Your task to perform on an android device: turn off notifications settings in the gmail app Image 0: 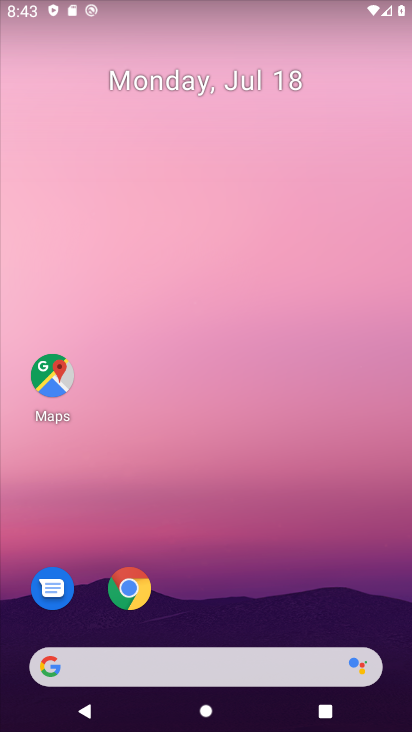
Step 0: press home button
Your task to perform on an android device: turn off notifications settings in the gmail app Image 1: 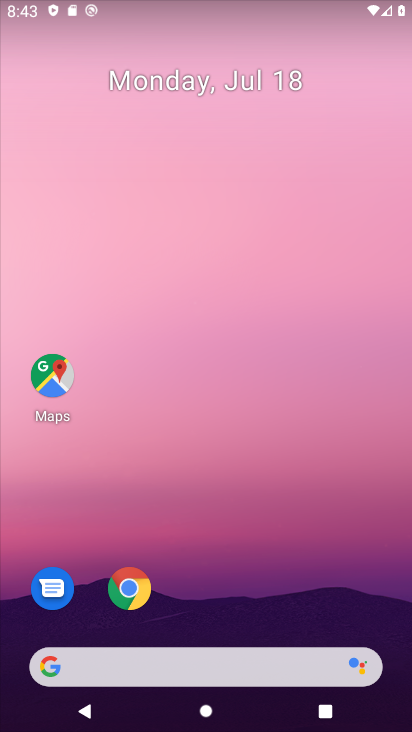
Step 1: drag from (230, 689) to (174, 66)
Your task to perform on an android device: turn off notifications settings in the gmail app Image 2: 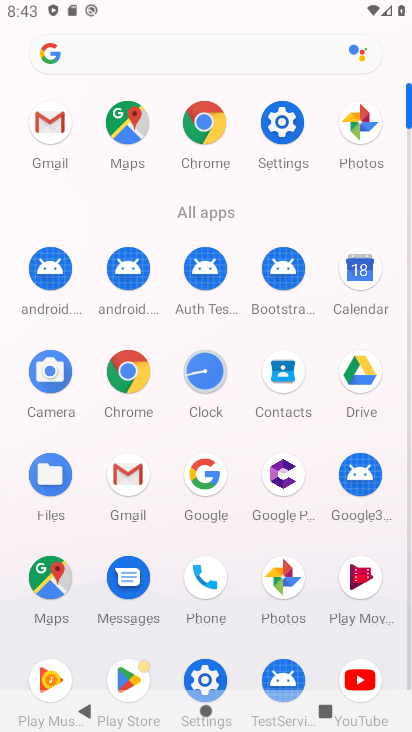
Step 2: click (139, 480)
Your task to perform on an android device: turn off notifications settings in the gmail app Image 3: 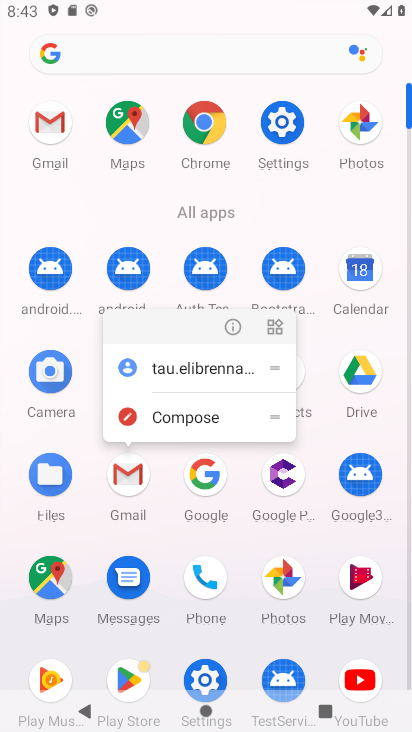
Step 3: click (244, 325)
Your task to perform on an android device: turn off notifications settings in the gmail app Image 4: 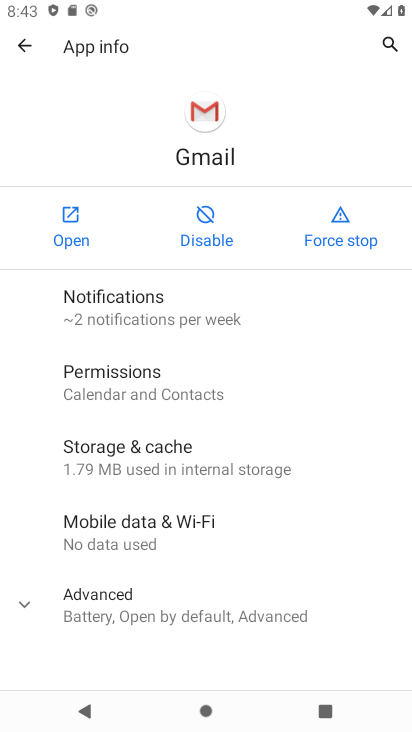
Step 4: click (66, 305)
Your task to perform on an android device: turn off notifications settings in the gmail app Image 5: 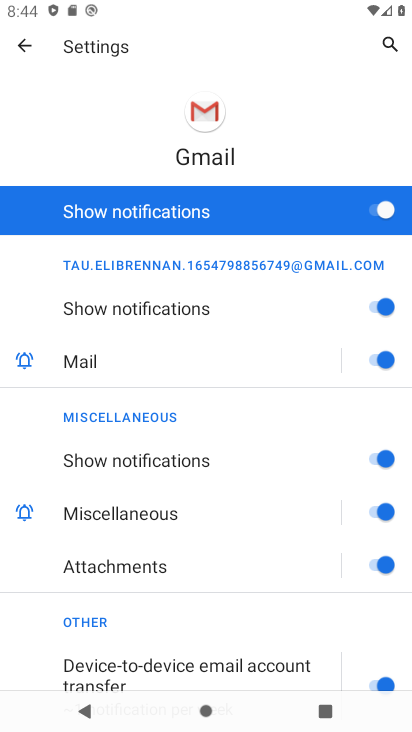
Step 5: click (344, 213)
Your task to perform on an android device: turn off notifications settings in the gmail app Image 6: 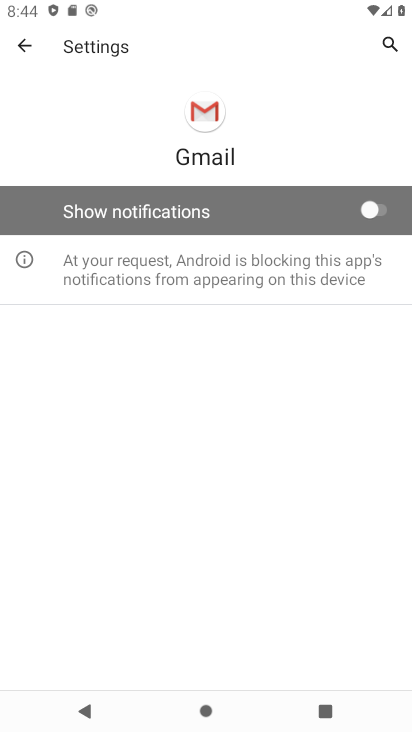
Step 6: task complete